Your task to perform on an android device: Go to network settings Image 0: 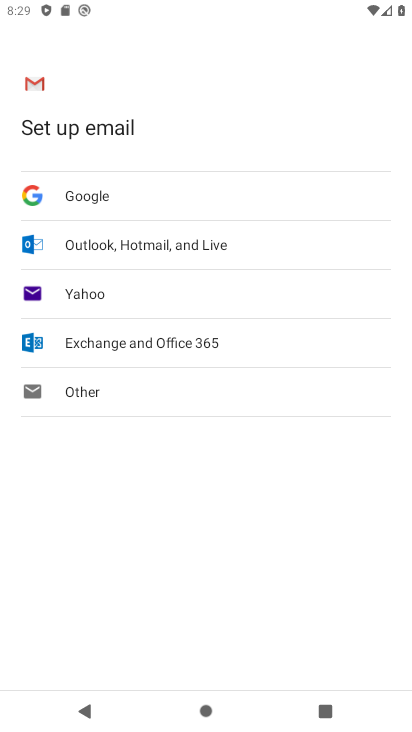
Step 0: press home button
Your task to perform on an android device: Go to network settings Image 1: 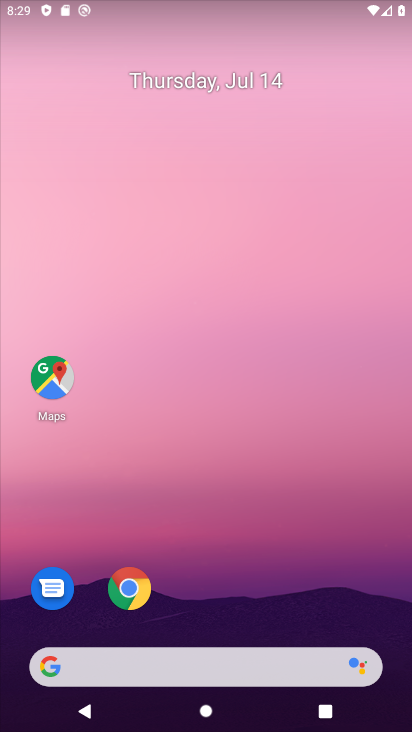
Step 1: drag from (228, 596) to (287, 147)
Your task to perform on an android device: Go to network settings Image 2: 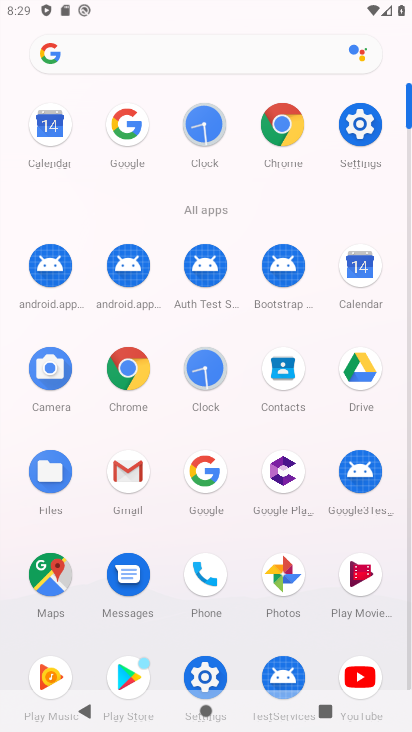
Step 2: click (356, 128)
Your task to perform on an android device: Go to network settings Image 3: 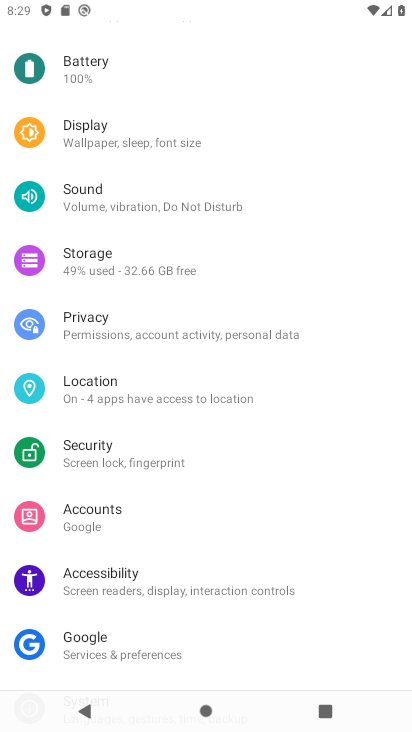
Step 3: drag from (107, 69) to (140, 450)
Your task to perform on an android device: Go to network settings Image 4: 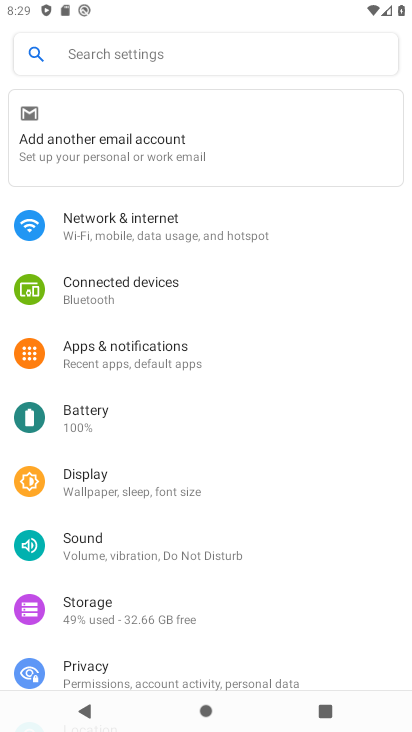
Step 4: click (122, 233)
Your task to perform on an android device: Go to network settings Image 5: 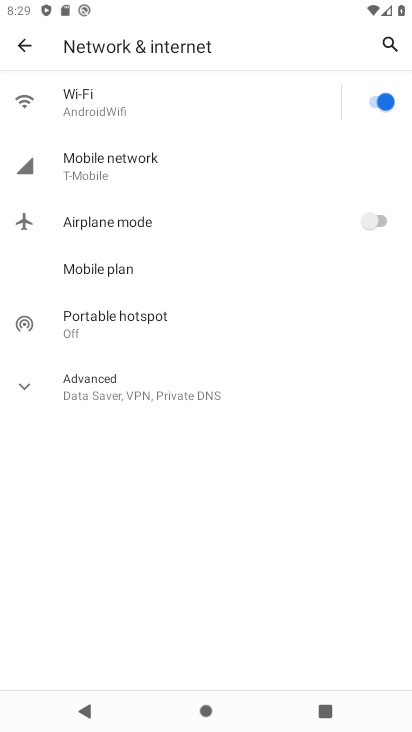
Step 5: click (145, 179)
Your task to perform on an android device: Go to network settings Image 6: 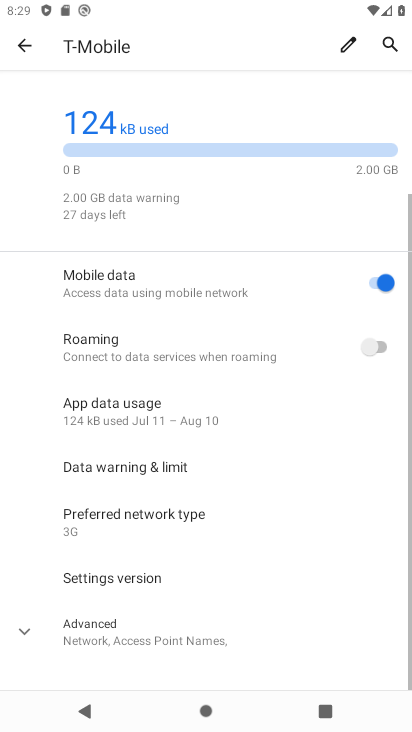
Step 6: task complete